Your task to perform on an android device: change the clock display to digital Image 0: 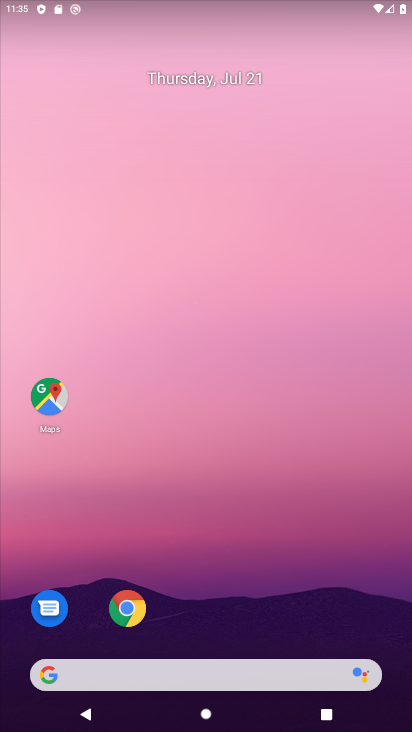
Step 0: drag from (307, 633) to (282, 19)
Your task to perform on an android device: change the clock display to digital Image 1: 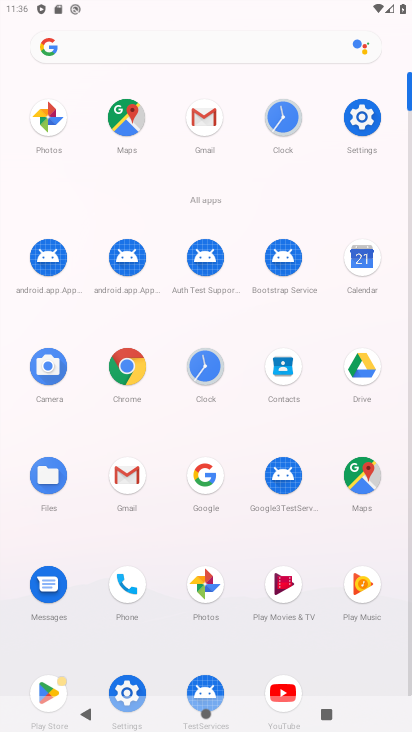
Step 1: click (285, 121)
Your task to perform on an android device: change the clock display to digital Image 2: 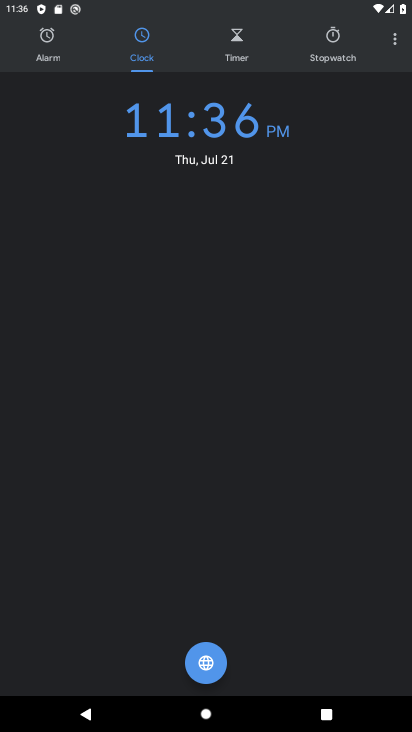
Step 2: click (391, 45)
Your task to perform on an android device: change the clock display to digital Image 3: 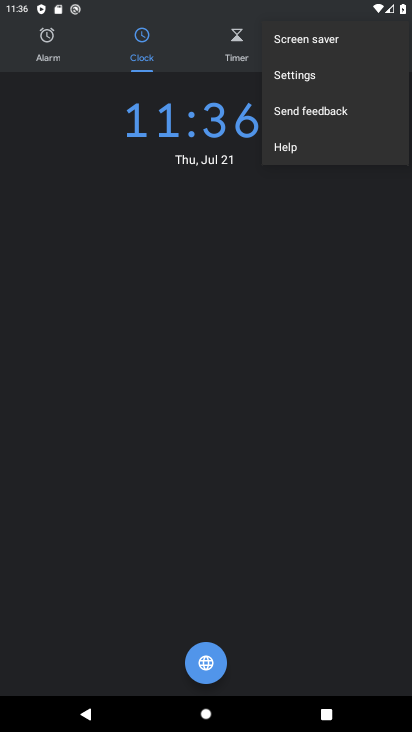
Step 3: click (325, 69)
Your task to perform on an android device: change the clock display to digital Image 4: 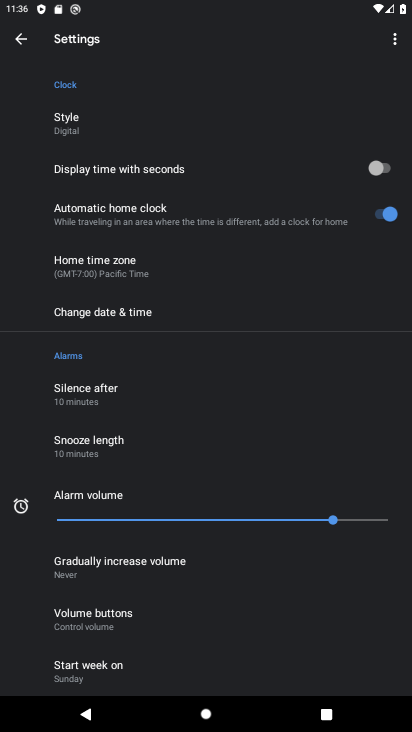
Step 4: click (79, 130)
Your task to perform on an android device: change the clock display to digital Image 5: 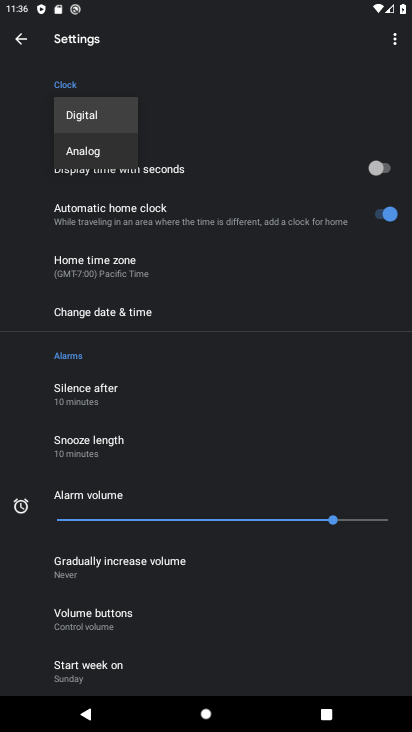
Step 5: task complete